Your task to perform on an android device: Open Chrome and go to the settings page Image 0: 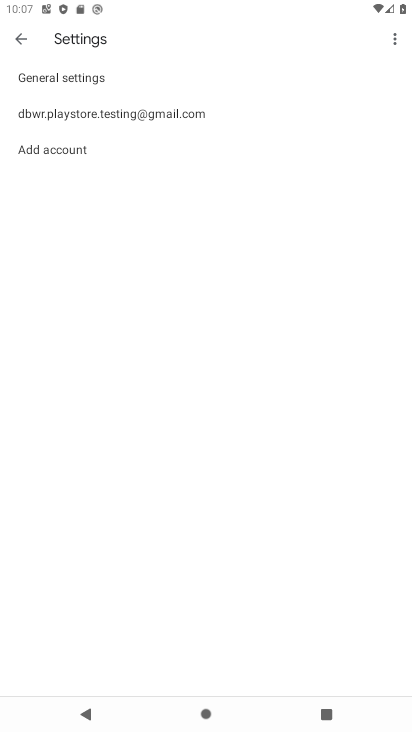
Step 0: press home button
Your task to perform on an android device: Open Chrome and go to the settings page Image 1: 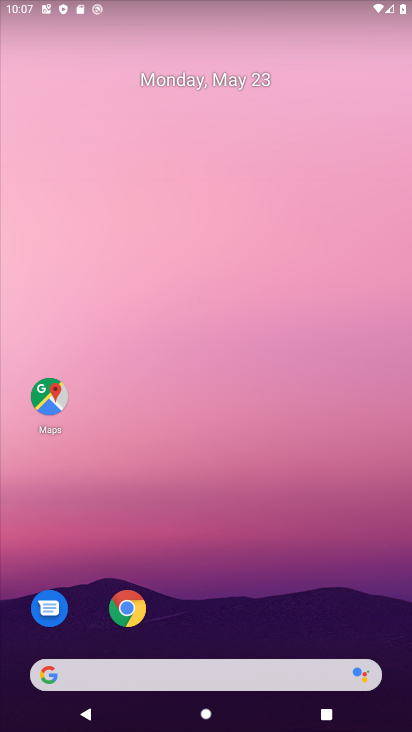
Step 1: click (141, 619)
Your task to perform on an android device: Open Chrome and go to the settings page Image 2: 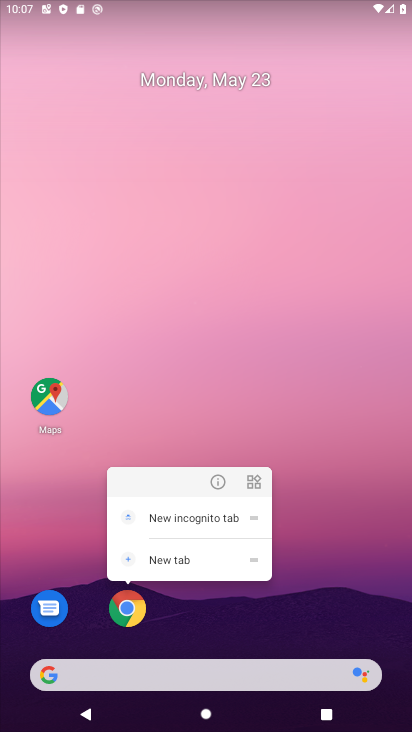
Step 2: click (134, 613)
Your task to perform on an android device: Open Chrome and go to the settings page Image 3: 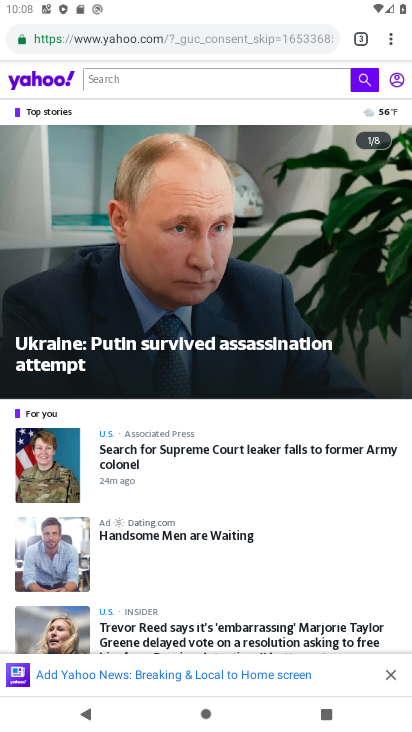
Step 3: task complete